Your task to perform on an android device: stop showing notifications on the lock screen Image 0: 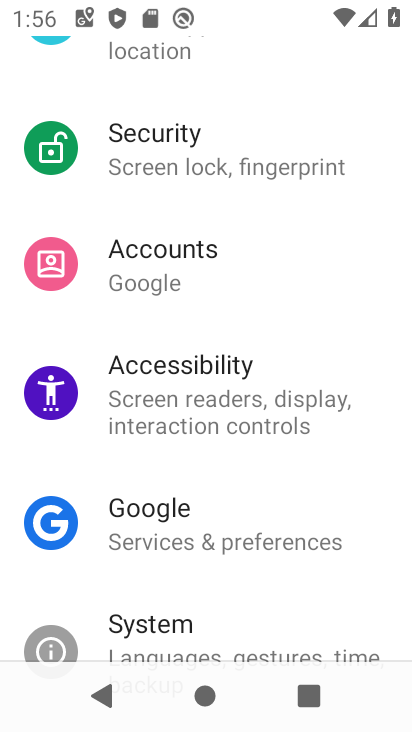
Step 0: drag from (146, 364) to (104, 714)
Your task to perform on an android device: stop showing notifications on the lock screen Image 1: 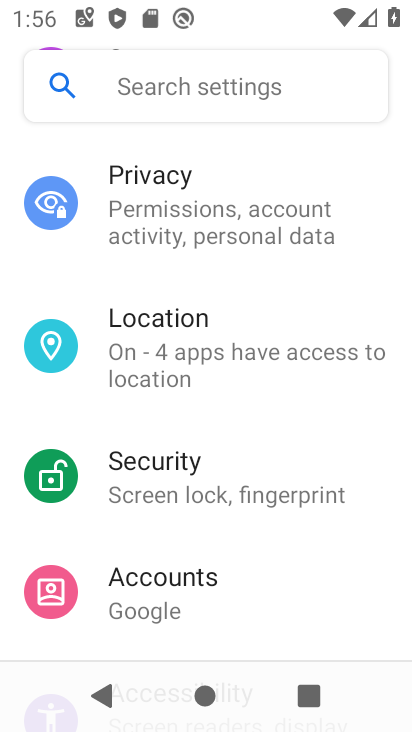
Step 1: drag from (178, 348) to (191, 481)
Your task to perform on an android device: stop showing notifications on the lock screen Image 2: 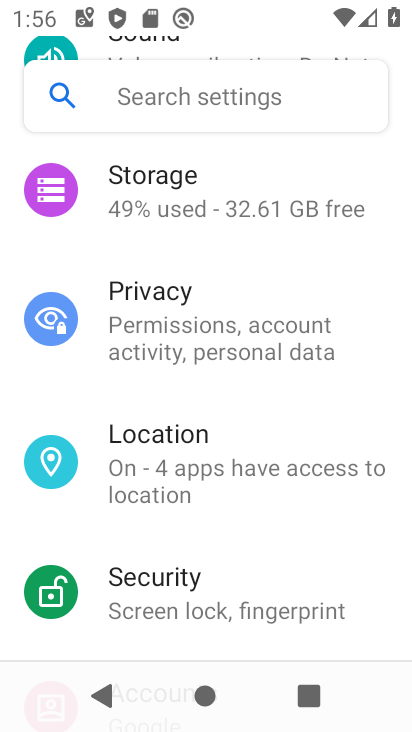
Step 2: drag from (215, 305) to (212, 674)
Your task to perform on an android device: stop showing notifications on the lock screen Image 3: 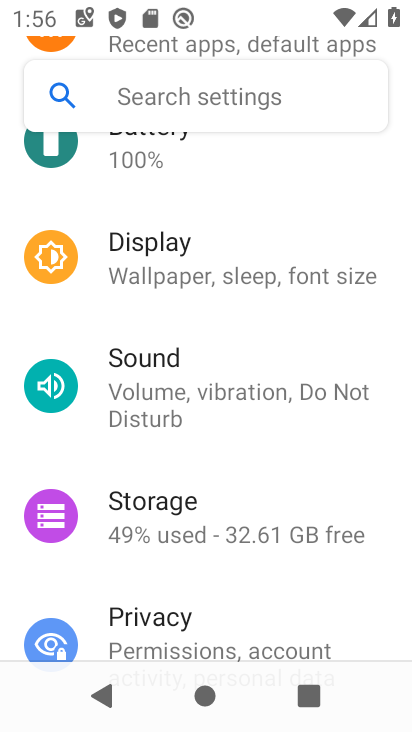
Step 3: drag from (260, 343) to (184, 572)
Your task to perform on an android device: stop showing notifications on the lock screen Image 4: 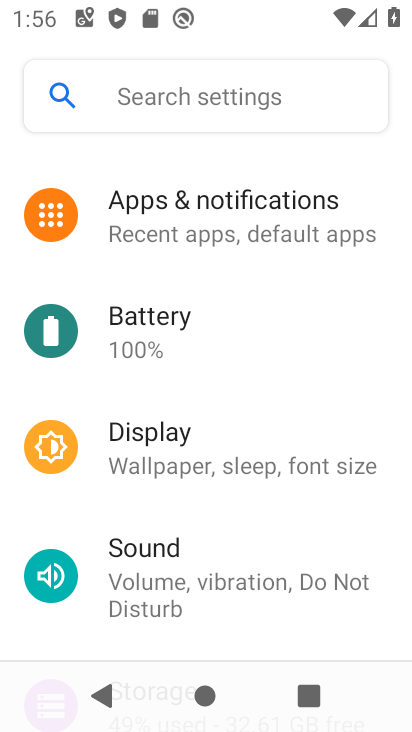
Step 4: click (264, 226)
Your task to perform on an android device: stop showing notifications on the lock screen Image 5: 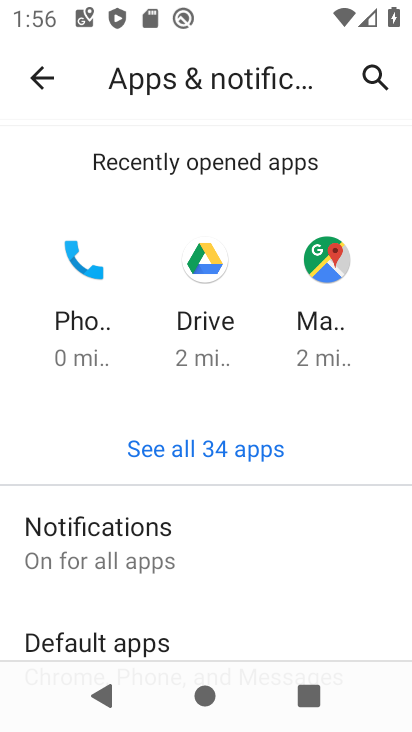
Step 5: click (177, 554)
Your task to perform on an android device: stop showing notifications on the lock screen Image 6: 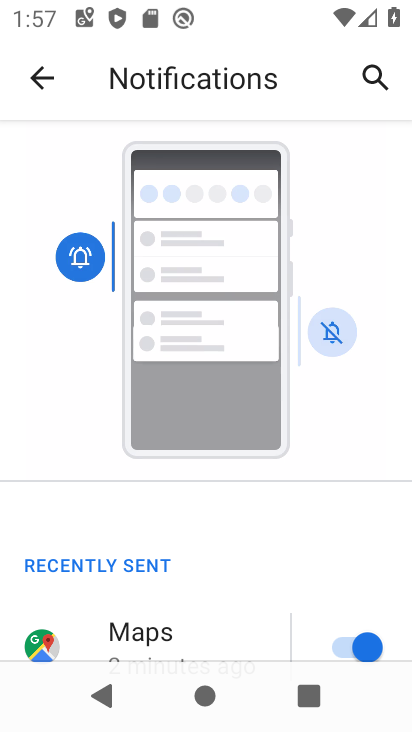
Step 6: drag from (168, 617) to (287, 191)
Your task to perform on an android device: stop showing notifications on the lock screen Image 7: 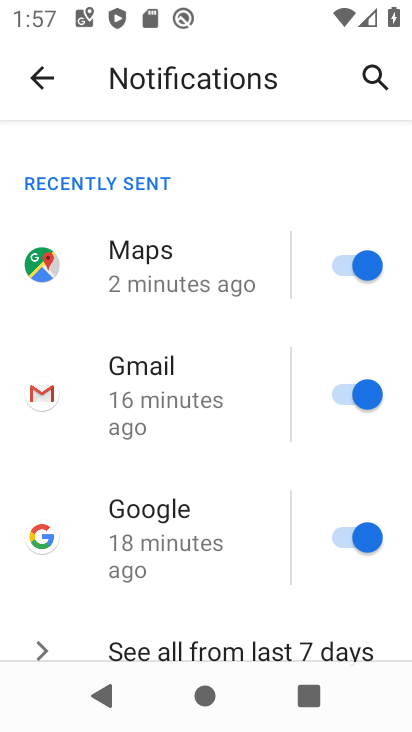
Step 7: drag from (173, 605) to (184, 258)
Your task to perform on an android device: stop showing notifications on the lock screen Image 8: 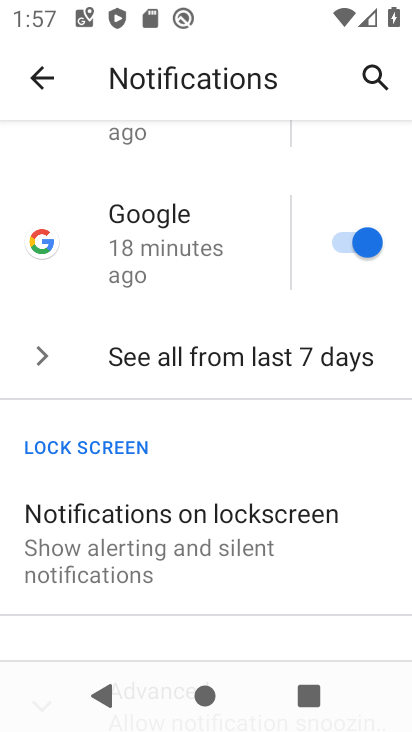
Step 8: drag from (153, 603) to (165, 351)
Your task to perform on an android device: stop showing notifications on the lock screen Image 9: 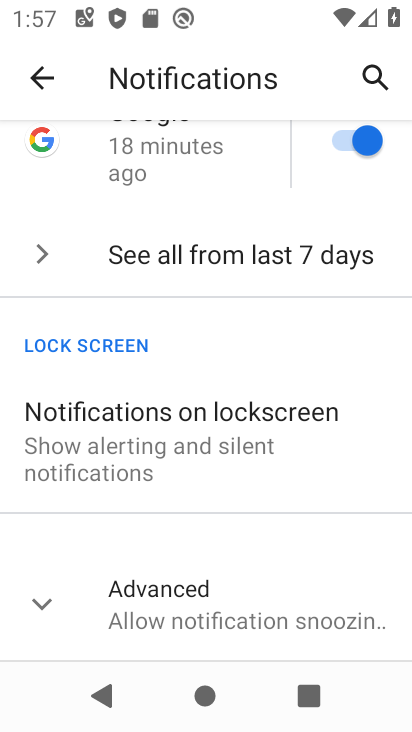
Step 9: click (88, 438)
Your task to perform on an android device: stop showing notifications on the lock screen Image 10: 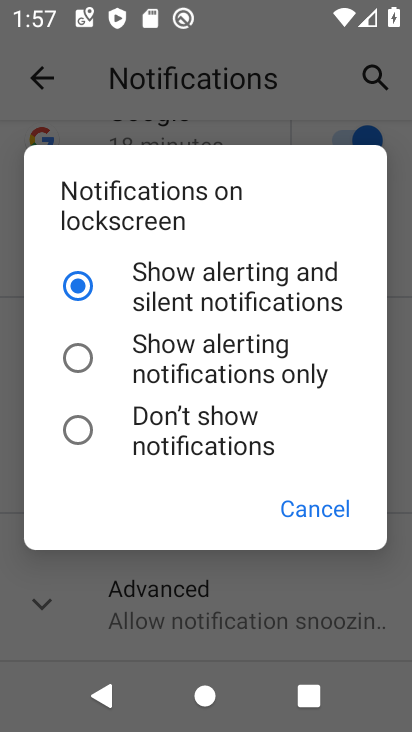
Step 10: click (122, 441)
Your task to perform on an android device: stop showing notifications on the lock screen Image 11: 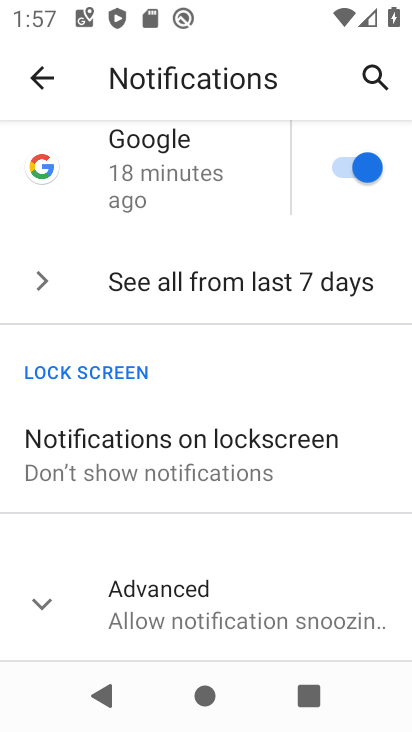
Step 11: task complete